Your task to perform on an android device: Is it going to rain this weekend? Image 0: 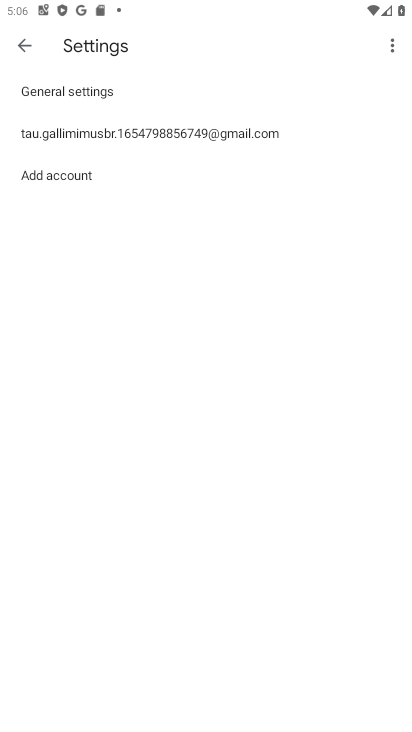
Step 0: press home button
Your task to perform on an android device: Is it going to rain this weekend? Image 1: 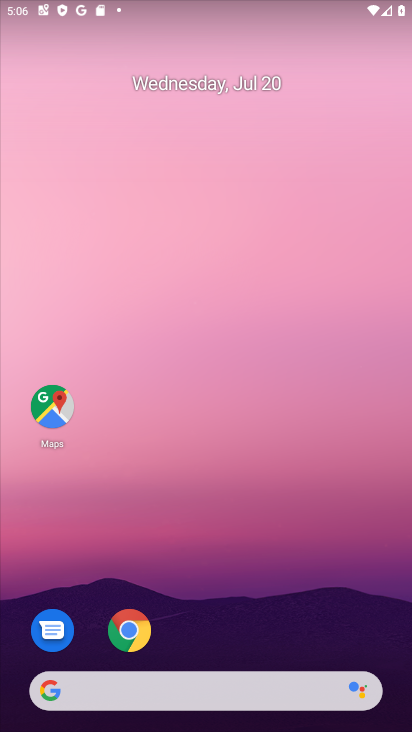
Step 1: drag from (184, 694) to (169, 211)
Your task to perform on an android device: Is it going to rain this weekend? Image 2: 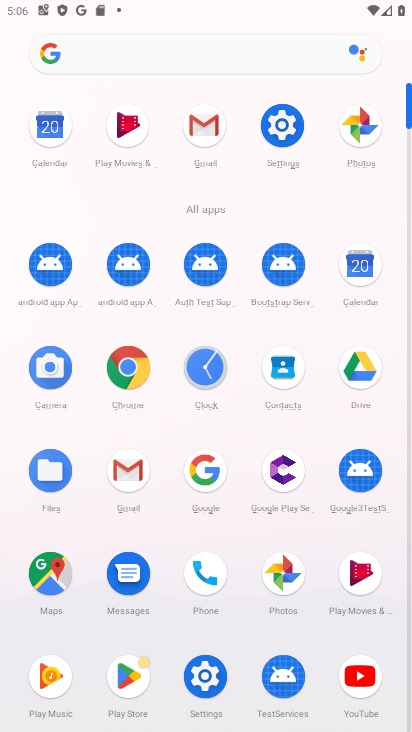
Step 2: click (203, 470)
Your task to perform on an android device: Is it going to rain this weekend? Image 3: 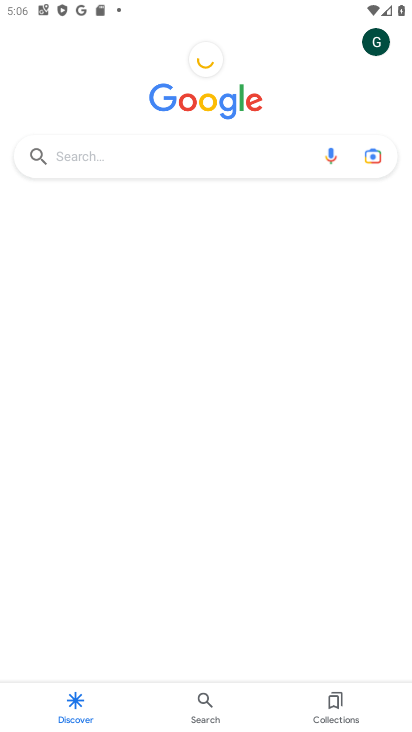
Step 3: click (142, 161)
Your task to perform on an android device: Is it going to rain this weekend? Image 4: 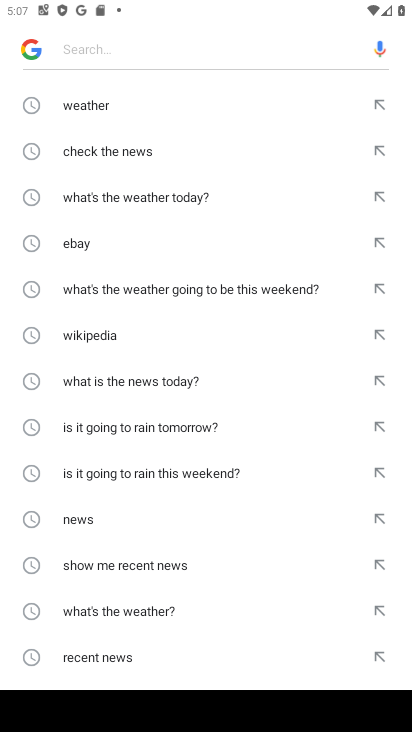
Step 4: type "Is it going to rain this weekend?"
Your task to perform on an android device: Is it going to rain this weekend? Image 5: 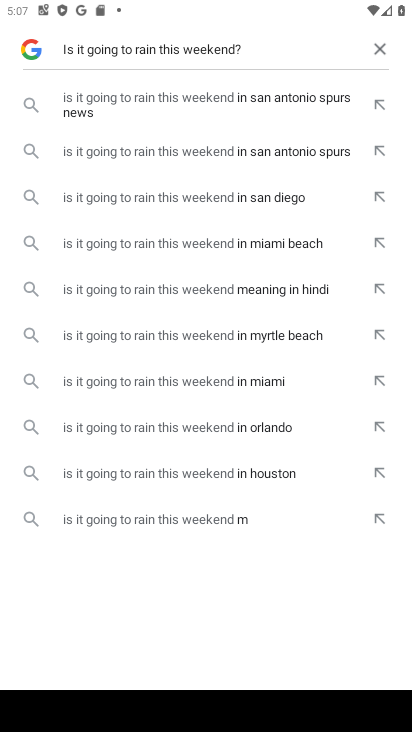
Step 5: click (188, 201)
Your task to perform on an android device: Is it going to rain this weekend? Image 6: 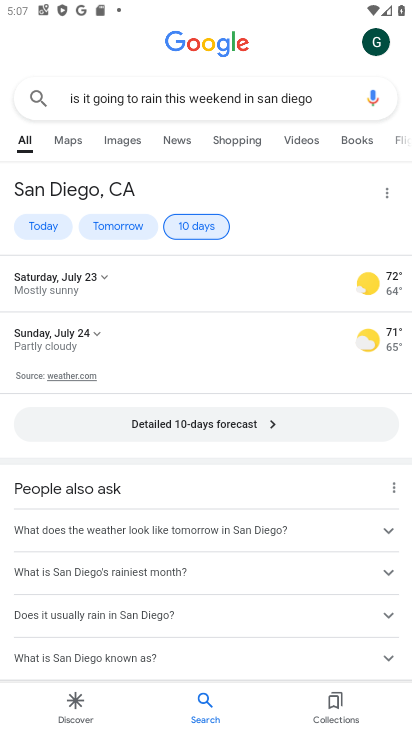
Step 6: task complete